Your task to perform on an android device: move a message to another label in the gmail app Image 0: 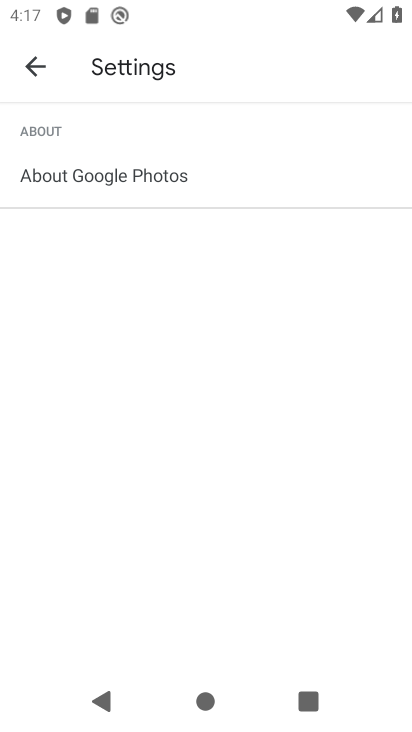
Step 0: press home button
Your task to perform on an android device: move a message to another label in the gmail app Image 1: 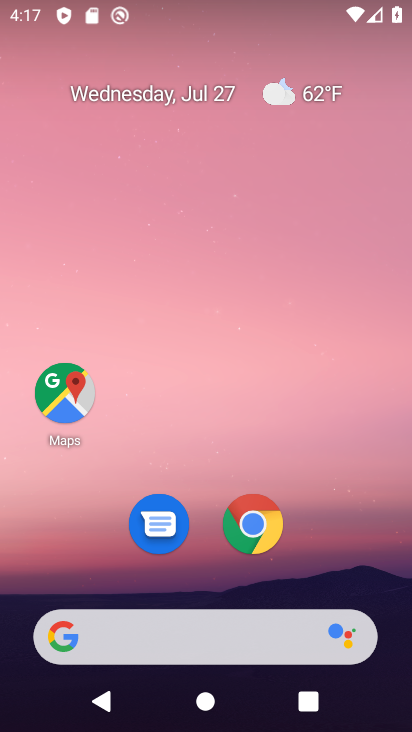
Step 1: drag from (336, 546) to (347, 163)
Your task to perform on an android device: move a message to another label in the gmail app Image 2: 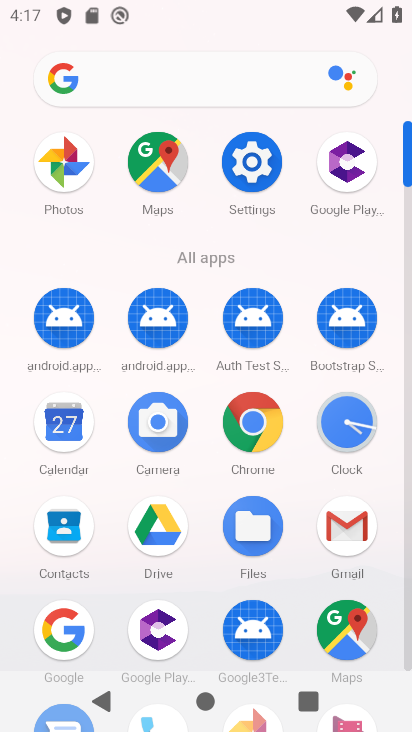
Step 2: click (358, 514)
Your task to perform on an android device: move a message to another label in the gmail app Image 3: 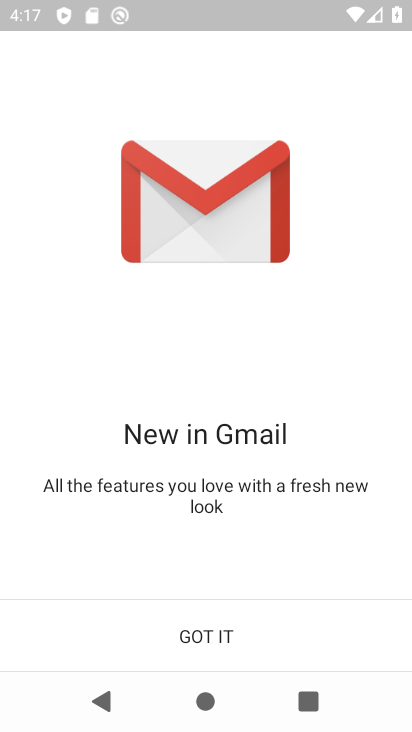
Step 3: click (224, 641)
Your task to perform on an android device: move a message to another label in the gmail app Image 4: 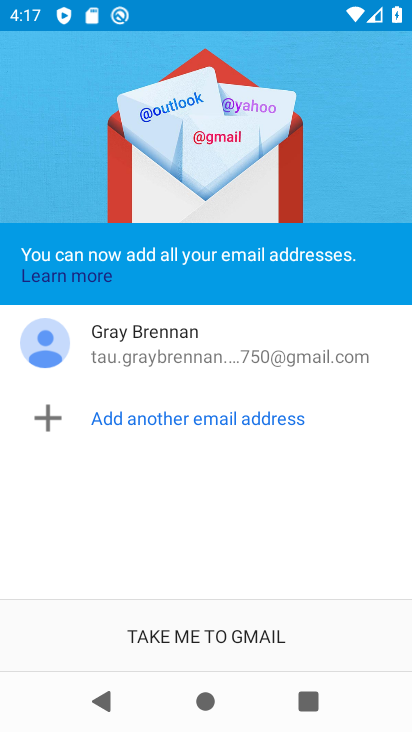
Step 4: click (224, 635)
Your task to perform on an android device: move a message to another label in the gmail app Image 5: 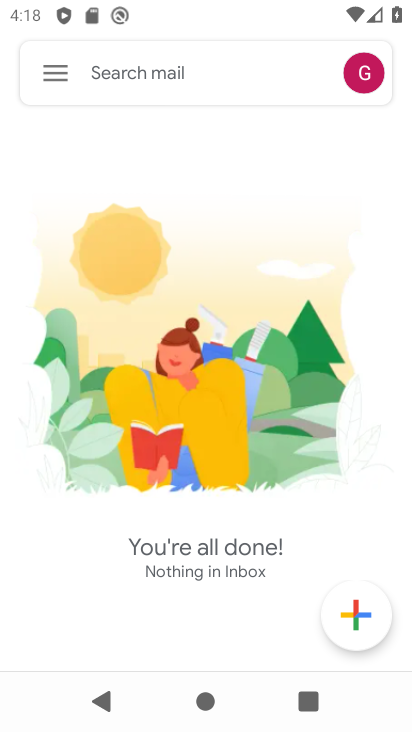
Step 5: click (67, 78)
Your task to perform on an android device: move a message to another label in the gmail app Image 6: 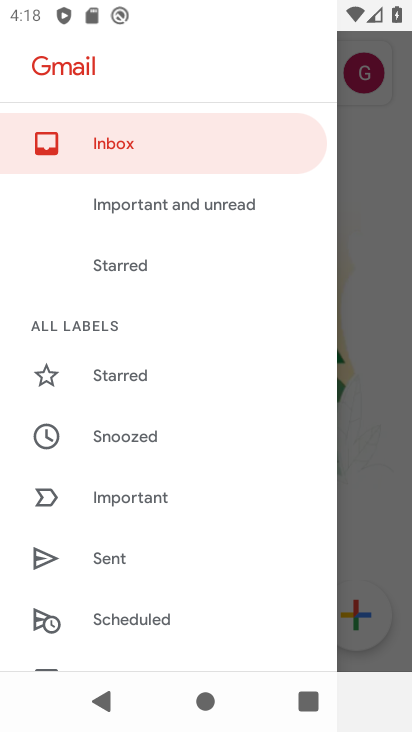
Step 6: drag from (171, 530) to (198, 205)
Your task to perform on an android device: move a message to another label in the gmail app Image 7: 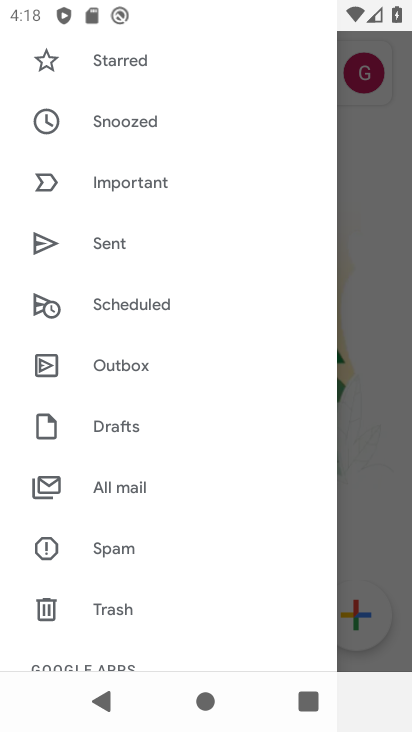
Step 7: drag from (198, 290) to (210, 495)
Your task to perform on an android device: move a message to another label in the gmail app Image 8: 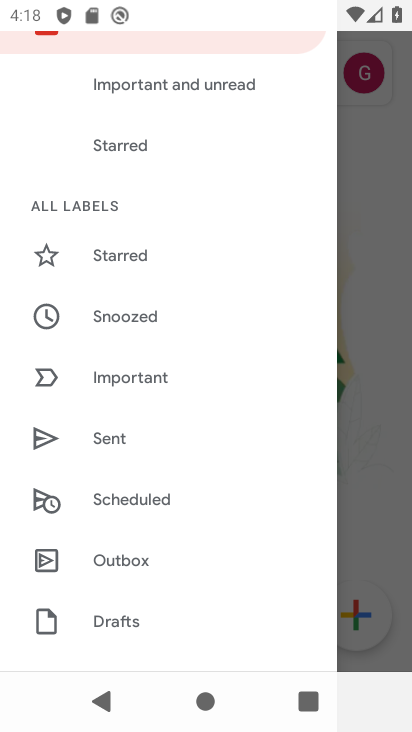
Step 8: drag from (190, 528) to (207, 353)
Your task to perform on an android device: move a message to another label in the gmail app Image 9: 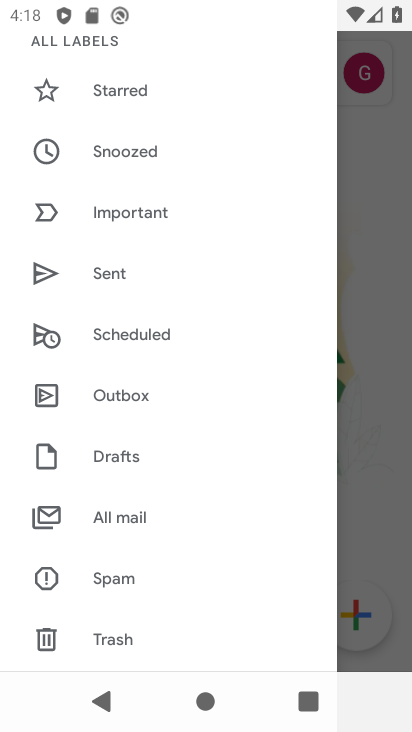
Step 9: click (134, 508)
Your task to perform on an android device: move a message to another label in the gmail app Image 10: 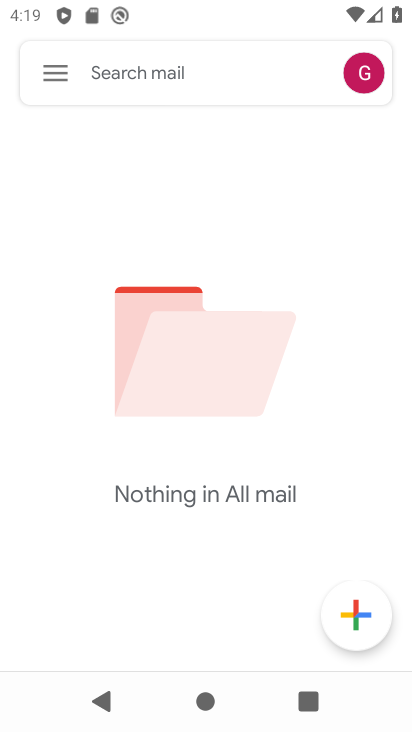
Step 10: task complete